Your task to perform on an android device: create a new album in the google photos Image 0: 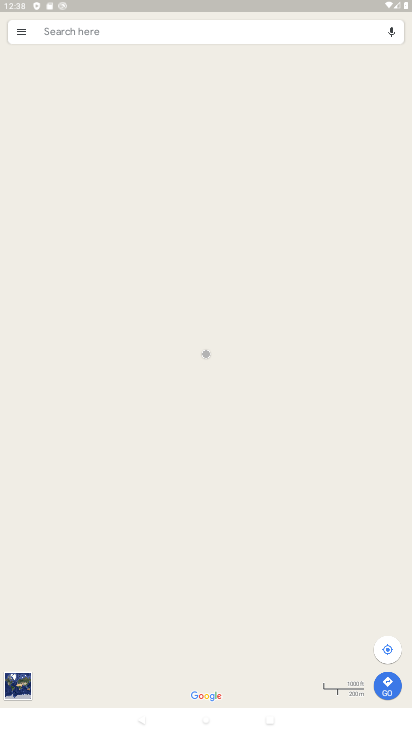
Step 0: press home button
Your task to perform on an android device: create a new album in the google photos Image 1: 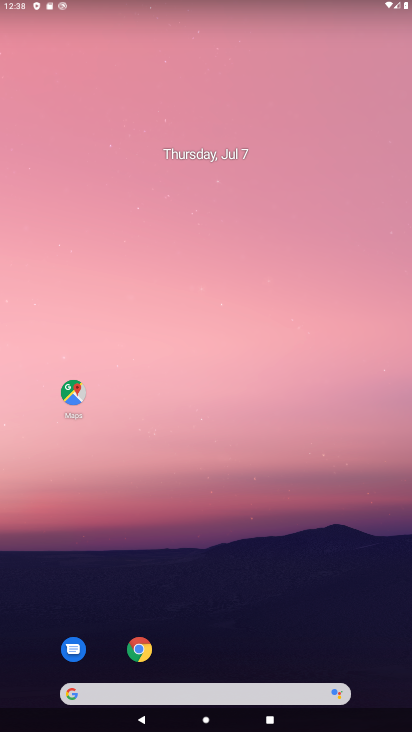
Step 1: drag from (194, 681) to (204, 214)
Your task to perform on an android device: create a new album in the google photos Image 2: 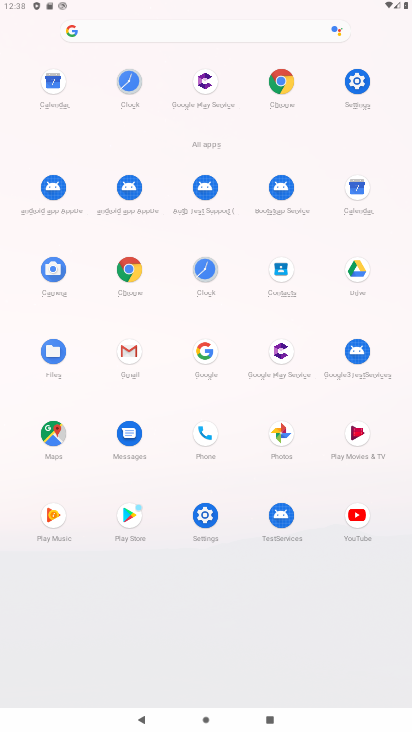
Step 2: click (273, 443)
Your task to perform on an android device: create a new album in the google photos Image 3: 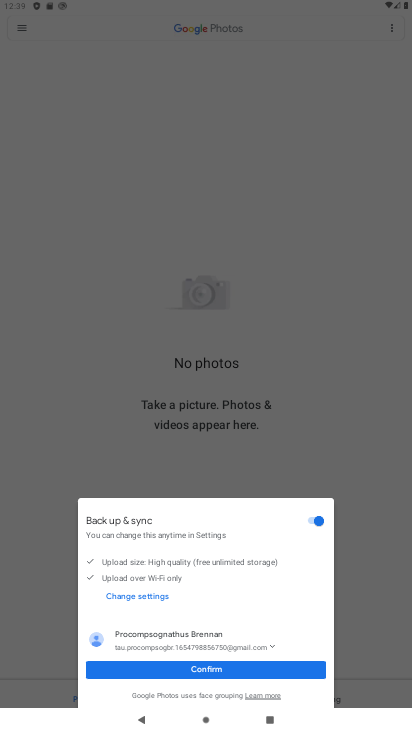
Step 3: click (245, 658)
Your task to perform on an android device: create a new album in the google photos Image 4: 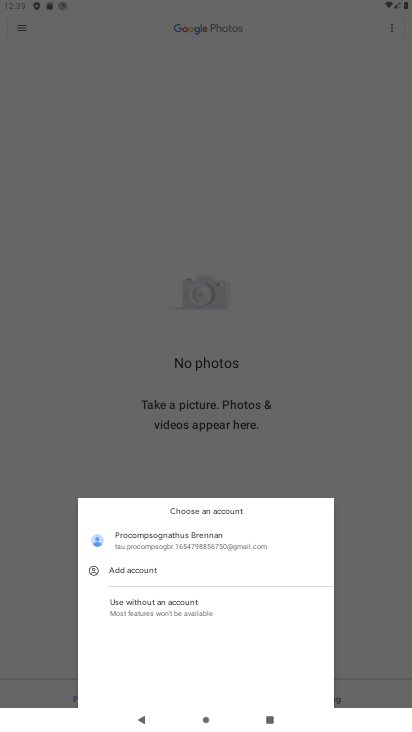
Step 4: click (144, 237)
Your task to perform on an android device: create a new album in the google photos Image 5: 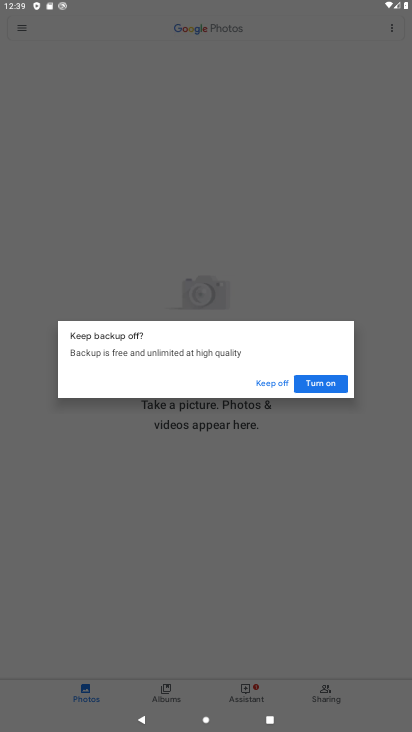
Step 5: click (144, 237)
Your task to perform on an android device: create a new album in the google photos Image 6: 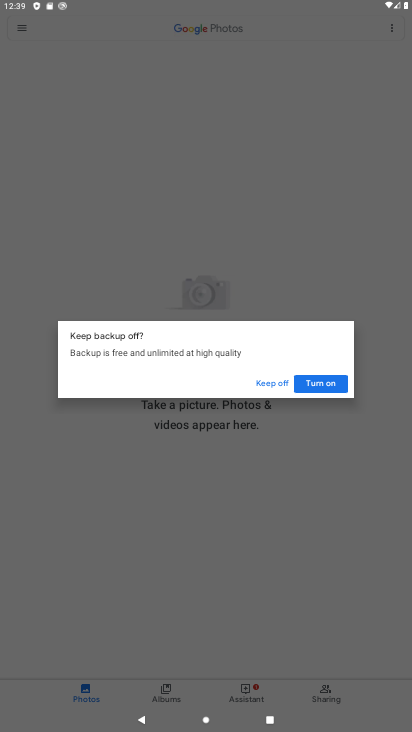
Step 6: click (311, 386)
Your task to perform on an android device: create a new album in the google photos Image 7: 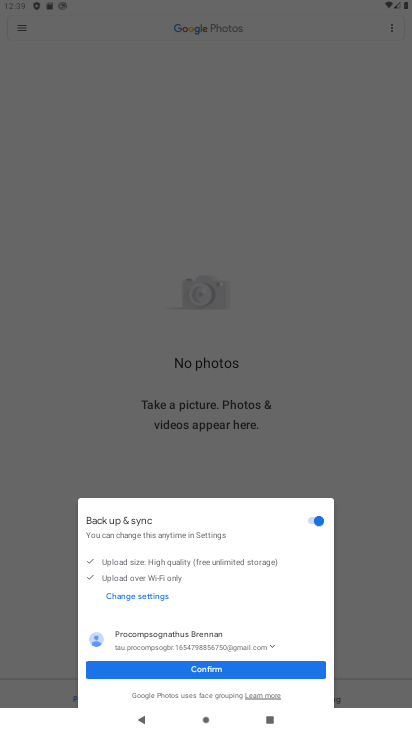
Step 7: click (180, 675)
Your task to perform on an android device: create a new album in the google photos Image 8: 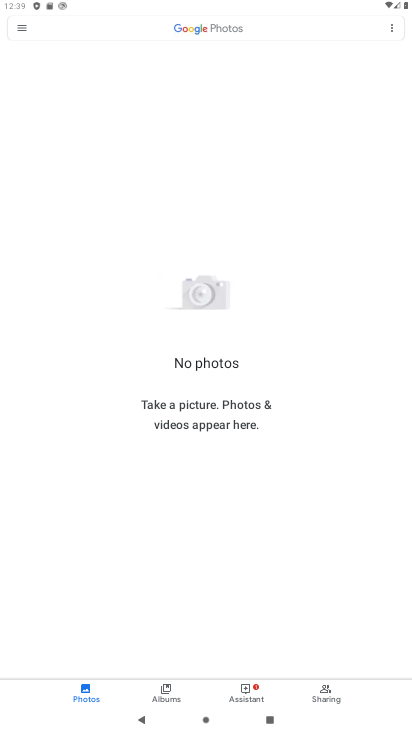
Step 8: click (179, 686)
Your task to perform on an android device: create a new album in the google photos Image 9: 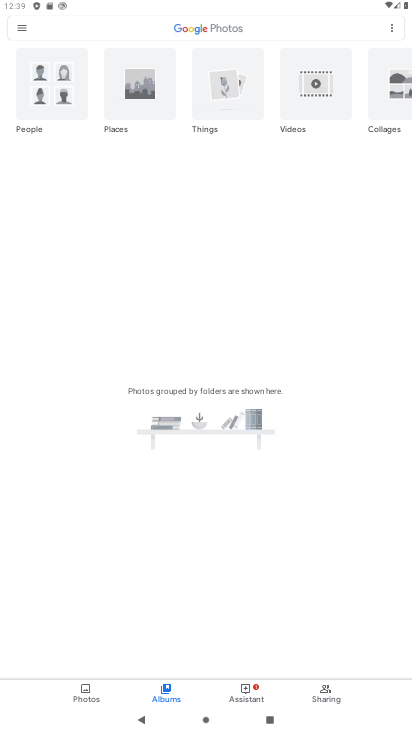
Step 9: task complete